Your task to perform on an android device: Go to sound settings Image 0: 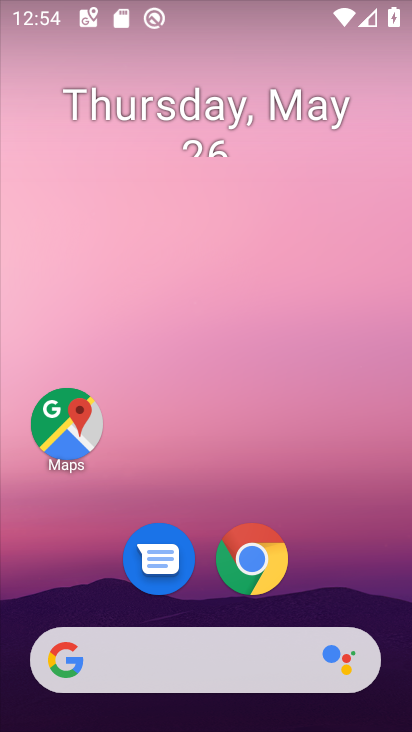
Step 0: press home button
Your task to perform on an android device: Go to sound settings Image 1: 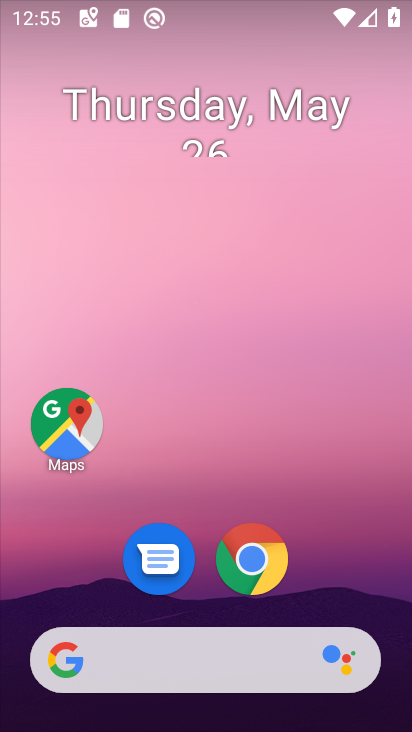
Step 1: drag from (315, 611) to (336, 1)
Your task to perform on an android device: Go to sound settings Image 2: 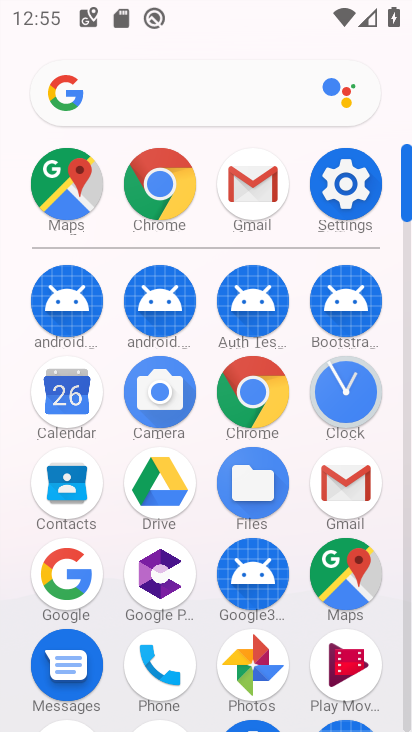
Step 2: click (339, 202)
Your task to perform on an android device: Go to sound settings Image 3: 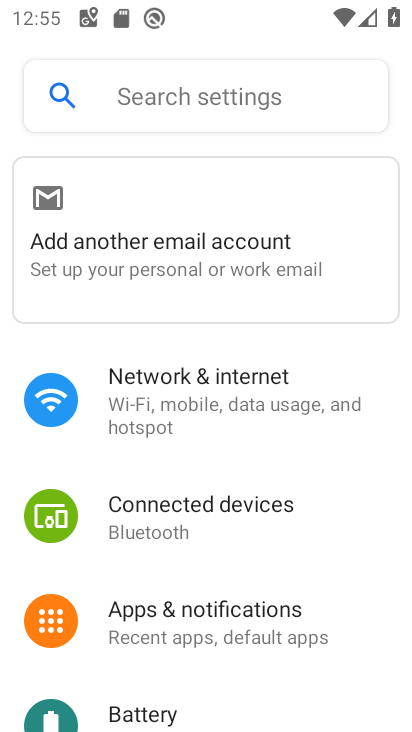
Step 3: drag from (262, 686) to (253, 200)
Your task to perform on an android device: Go to sound settings Image 4: 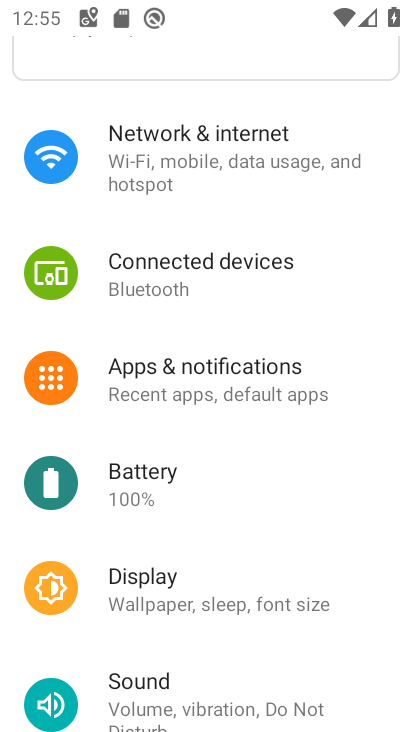
Step 4: click (133, 705)
Your task to perform on an android device: Go to sound settings Image 5: 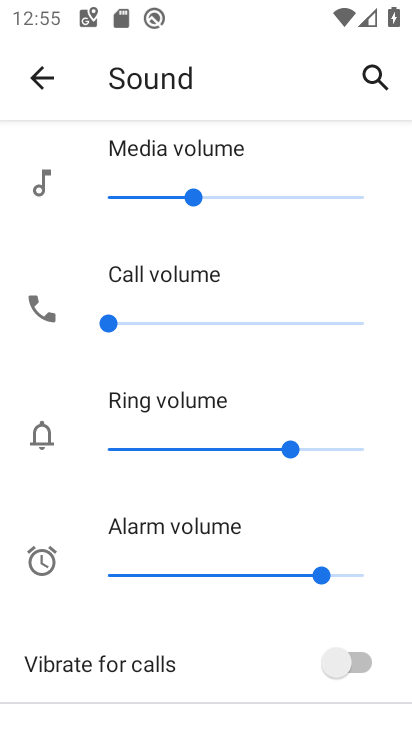
Step 5: task complete